Your task to perform on an android device: What's on my calendar today? Image 0: 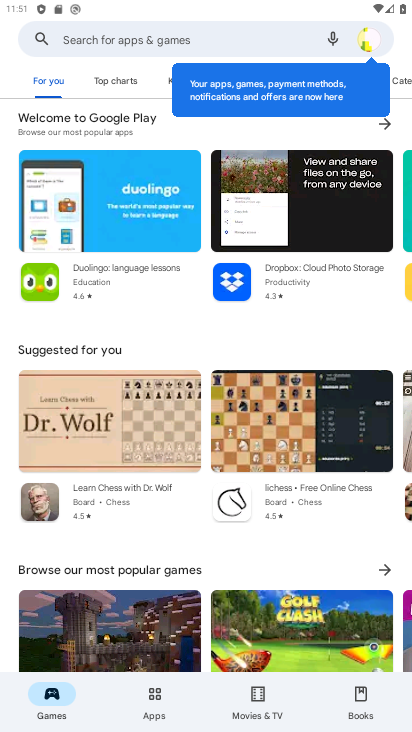
Step 0: press home button
Your task to perform on an android device: What's on my calendar today? Image 1: 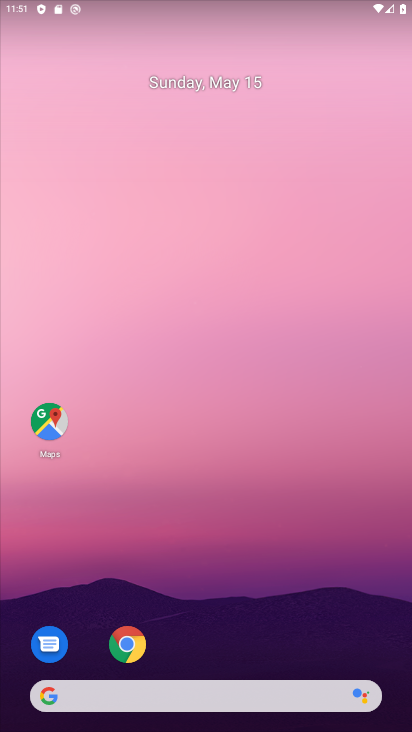
Step 1: drag from (216, 654) to (288, 0)
Your task to perform on an android device: What's on my calendar today? Image 2: 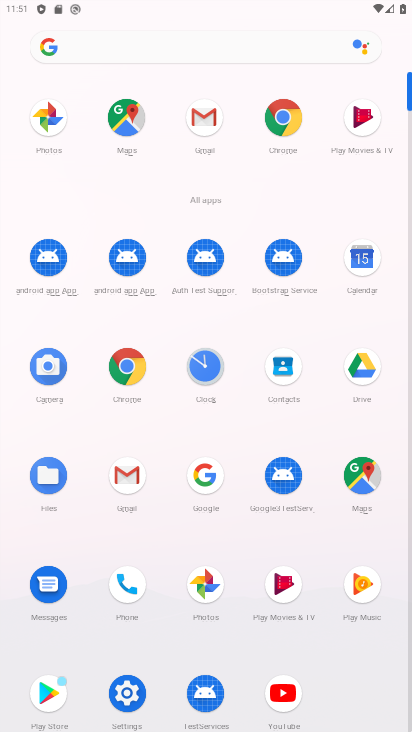
Step 2: click (360, 262)
Your task to perform on an android device: What's on my calendar today? Image 3: 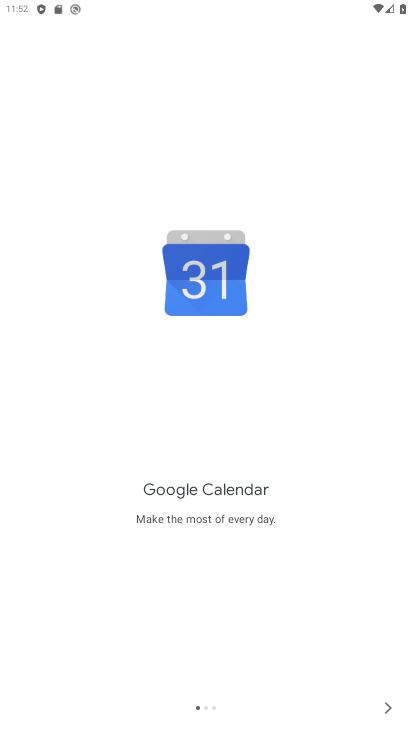
Step 3: click (388, 708)
Your task to perform on an android device: What's on my calendar today? Image 4: 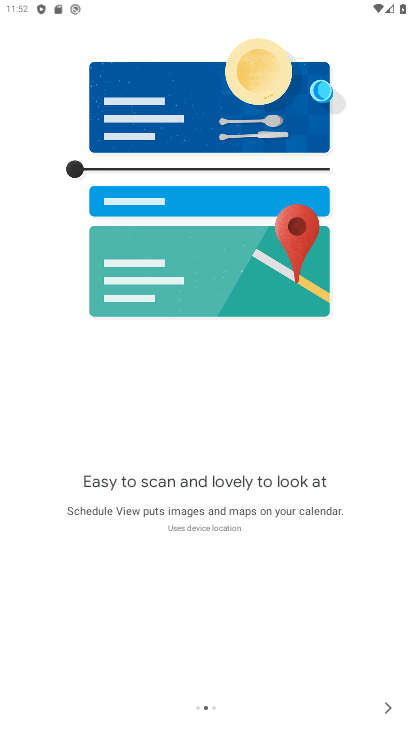
Step 4: click (390, 710)
Your task to perform on an android device: What's on my calendar today? Image 5: 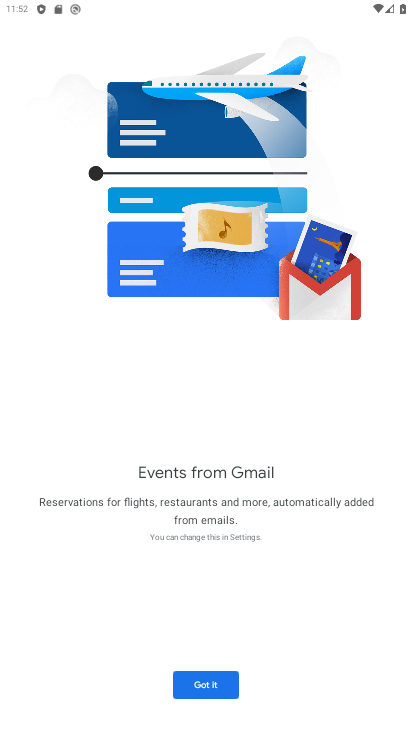
Step 5: click (206, 681)
Your task to perform on an android device: What's on my calendar today? Image 6: 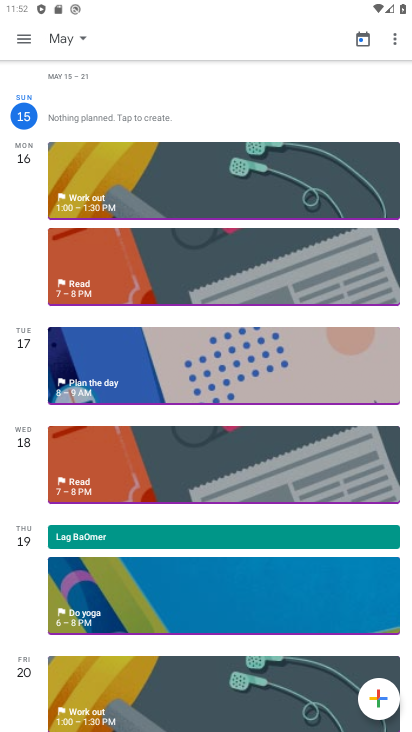
Step 6: click (20, 36)
Your task to perform on an android device: What's on my calendar today? Image 7: 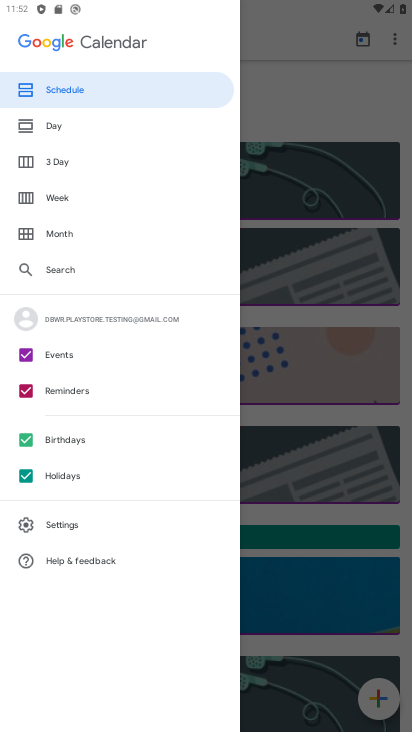
Step 7: click (57, 137)
Your task to perform on an android device: What's on my calendar today? Image 8: 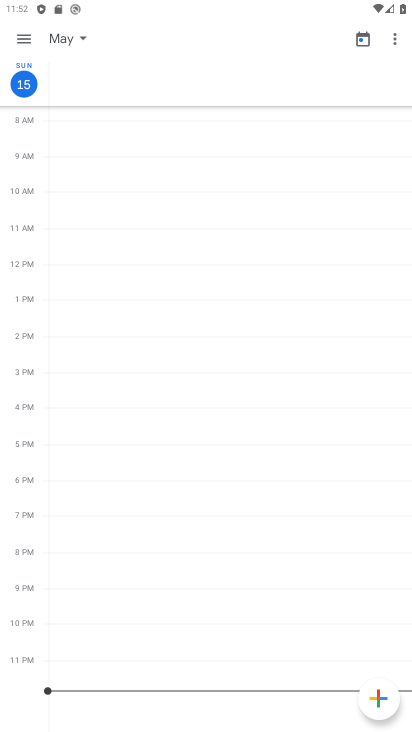
Step 8: task complete